Your task to perform on an android device: clear all cookies in the chrome app Image 0: 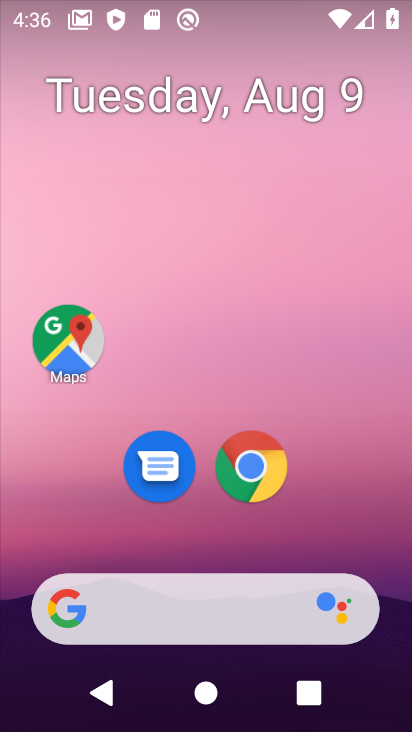
Step 0: click (357, 25)
Your task to perform on an android device: clear all cookies in the chrome app Image 1: 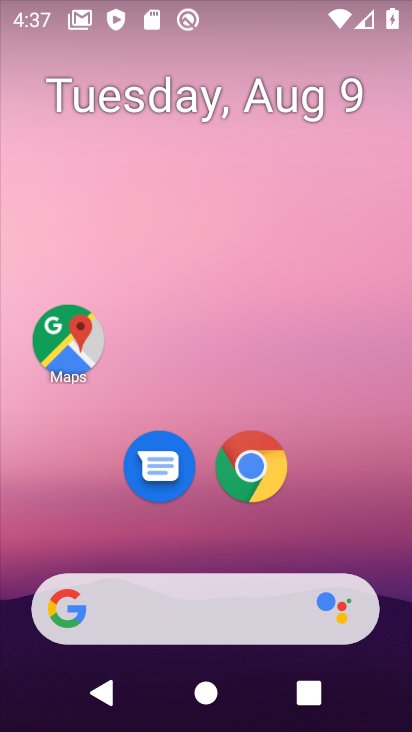
Step 1: drag from (219, 453) to (220, 160)
Your task to perform on an android device: clear all cookies in the chrome app Image 2: 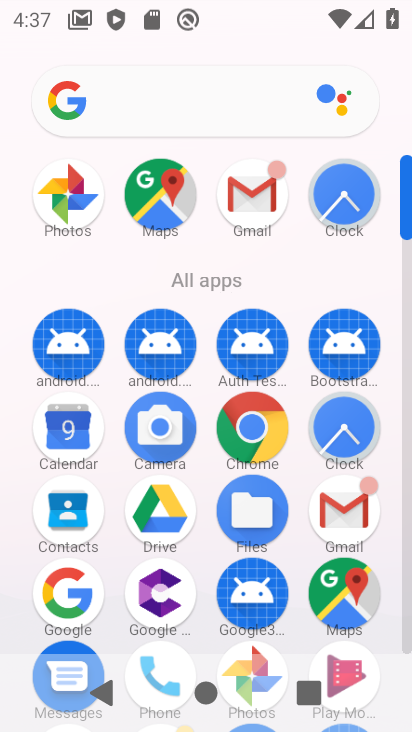
Step 2: click (244, 426)
Your task to perform on an android device: clear all cookies in the chrome app Image 3: 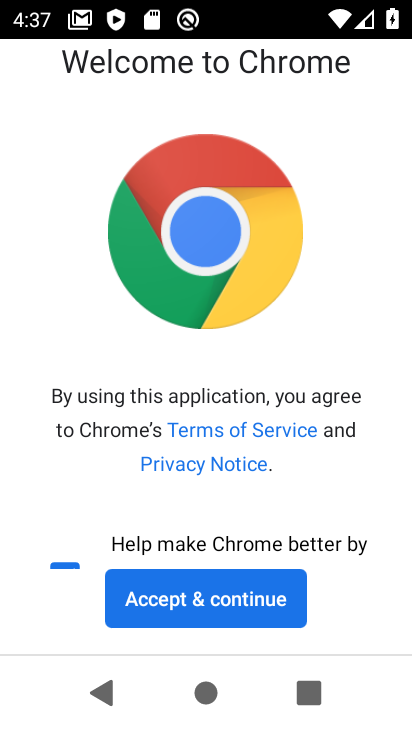
Step 3: click (182, 621)
Your task to perform on an android device: clear all cookies in the chrome app Image 4: 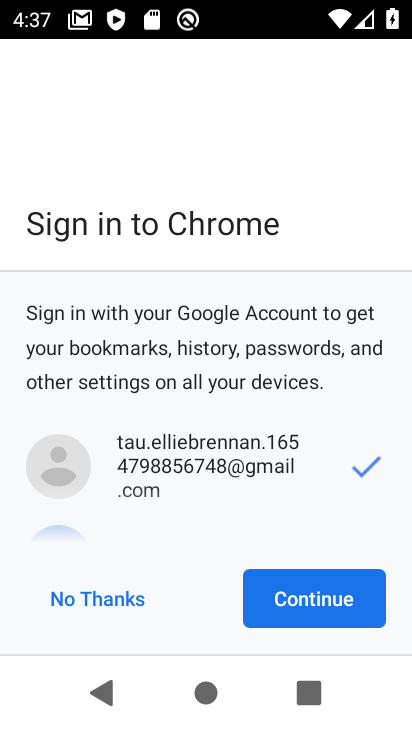
Step 4: click (284, 562)
Your task to perform on an android device: clear all cookies in the chrome app Image 5: 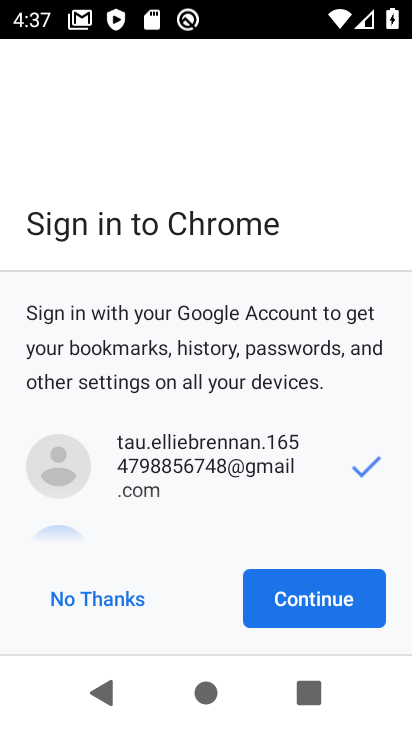
Step 5: click (305, 599)
Your task to perform on an android device: clear all cookies in the chrome app Image 6: 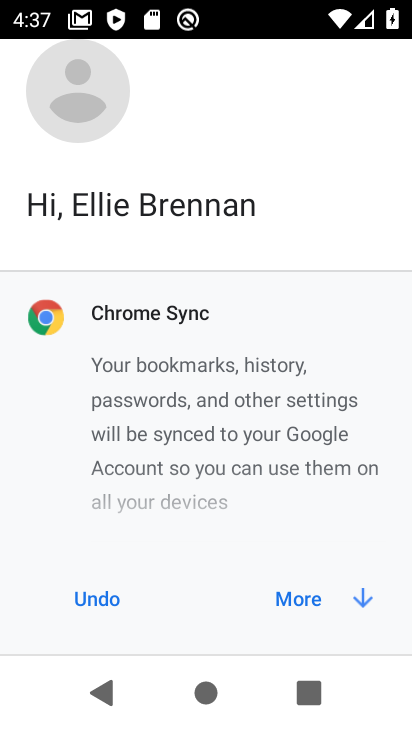
Step 6: click (281, 583)
Your task to perform on an android device: clear all cookies in the chrome app Image 7: 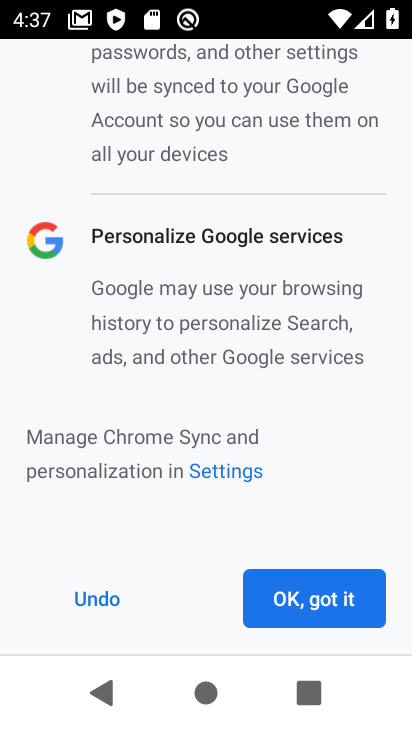
Step 7: click (314, 626)
Your task to perform on an android device: clear all cookies in the chrome app Image 8: 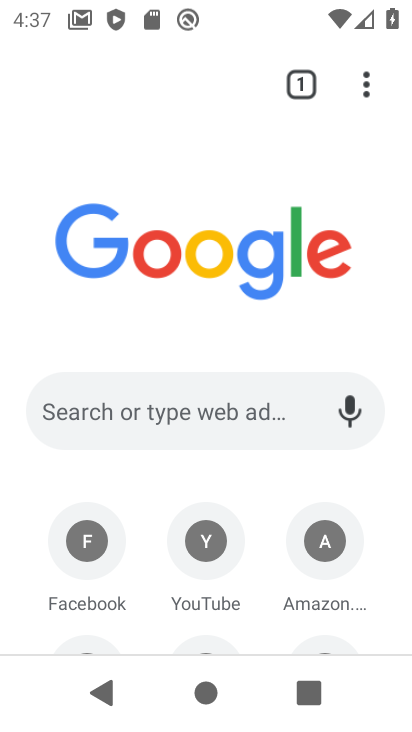
Step 8: drag from (362, 86) to (108, 481)
Your task to perform on an android device: clear all cookies in the chrome app Image 9: 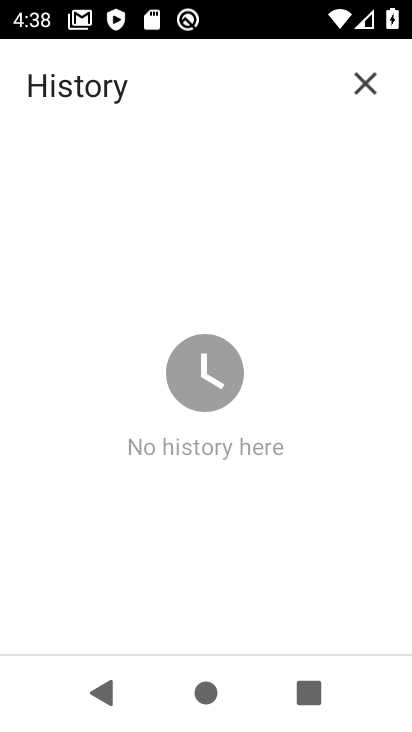
Step 9: drag from (301, 506) to (294, 400)
Your task to perform on an android device: clear all cookies in the chrome app Image 10: 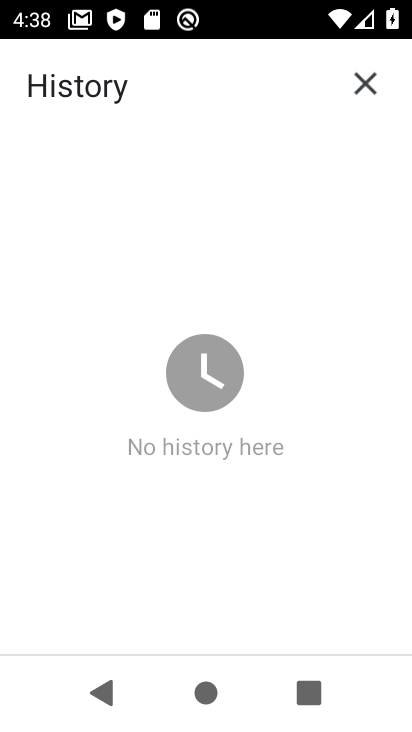
Step 10: click (197, 456)
Your task to perform on an android device: clear all cookies in the chrome app Image 11: 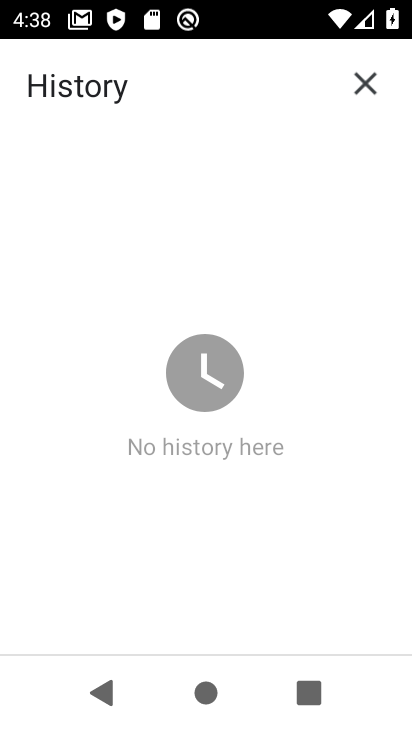
Step 11: task complete